Your task to perform on an android device: Search for Mexican restaurants on Maps Image 0: 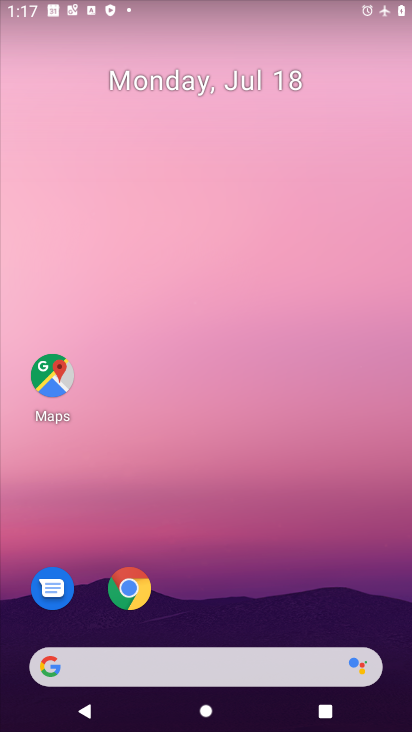
Step 0: click (339, 100)
Your task to perform on an android device: Search for Mexican restaurants on Maps Image 1: 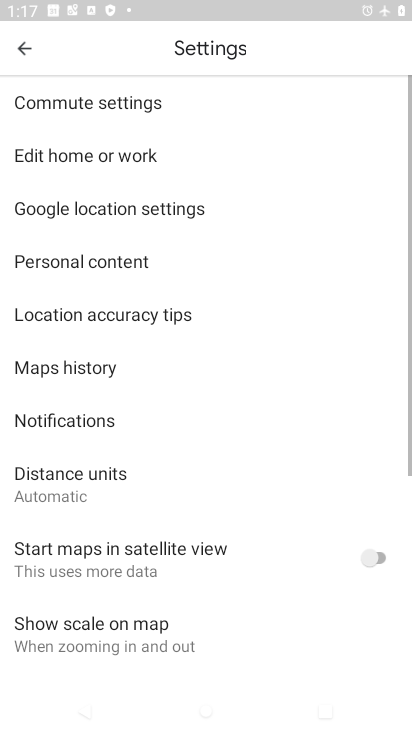
Step 1: press home button
Your task to perform on an android device: Search for Mexican restaurants on Maps Image 2: 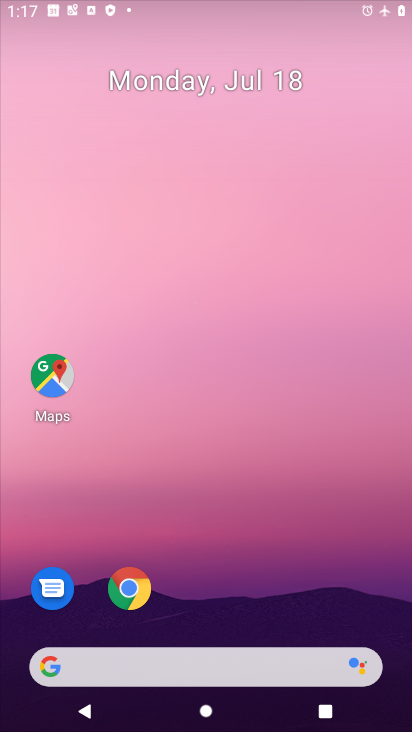
Step 2: drag from (225, 653) to (262, 190)
Your task to perform on an android device: Search for Mexican restaurants on Maps Image 3: 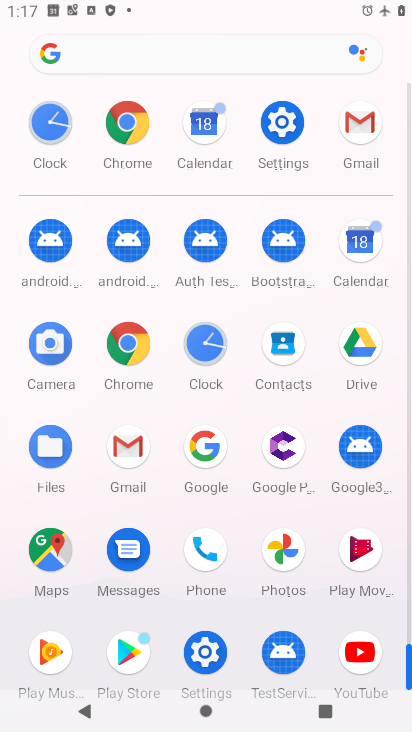
Step 3: drag from (227, 546) to (227, 377)
Your task to perform on an android device: Search for Mexican restaurants on Maps Image 4: 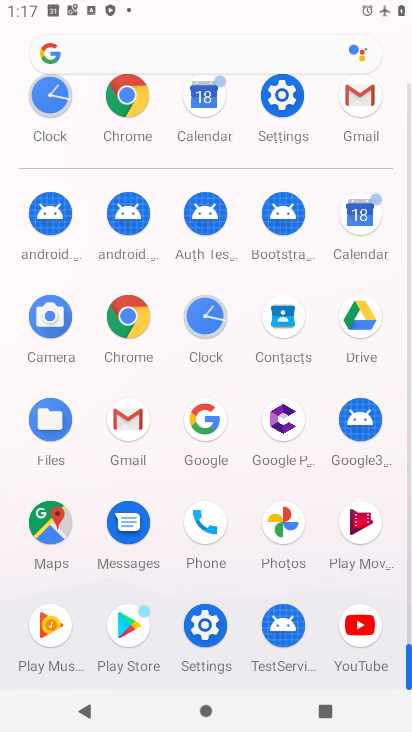
Step 4: click (52, 537)
Your task to perform on an android device: Search for Mexican restaurants on Maps Image 5: 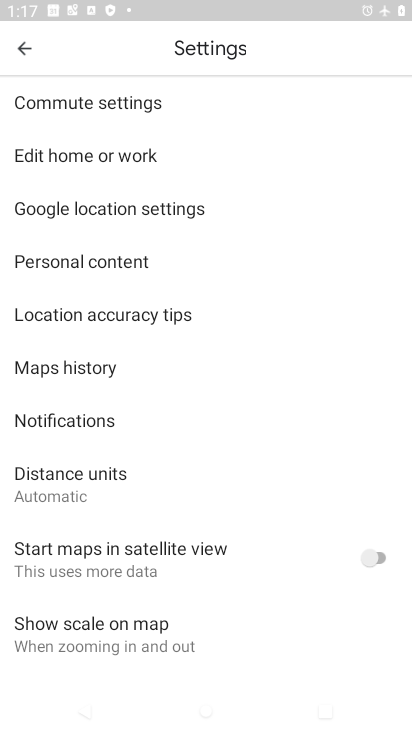
Step 5: click (19, 34)
Your task to perform on an android device: Search for Mexican restaurants on Maps Image 6: 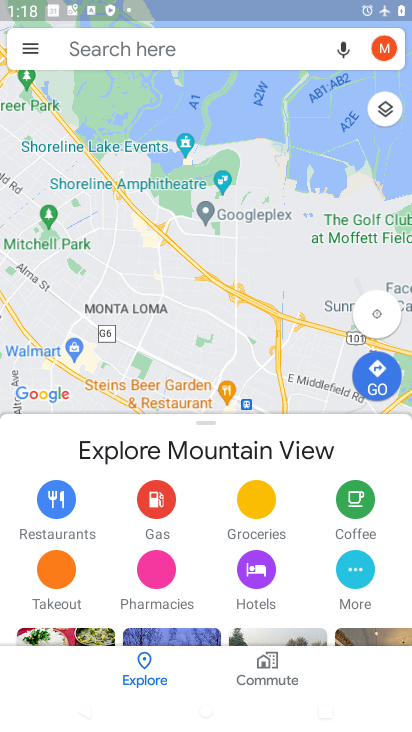
Step 6: click (155, 53)
Your task to perform on an android device: Search for Mexican restaurants on Maps Image 7: 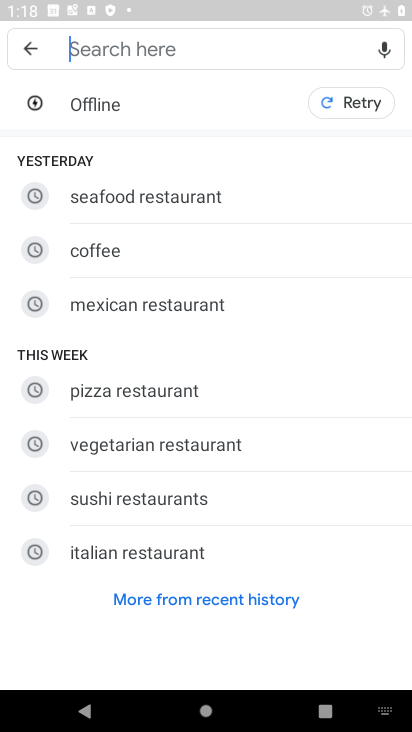
Step 7: click (165, 305)
Your task to perform on an android device: Search for Mexican restaurants on Maps Image 8: 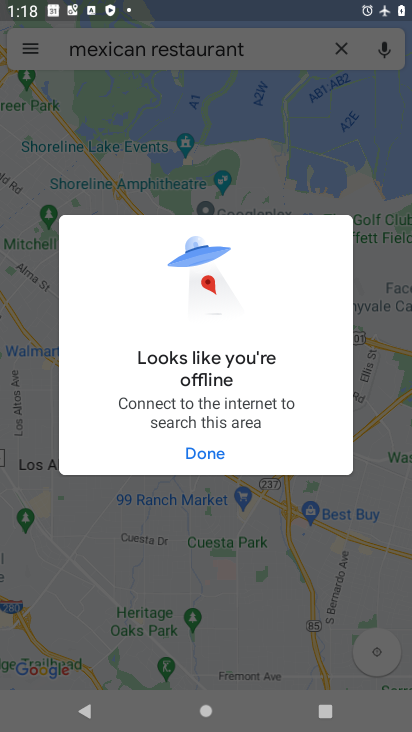
Step 8: click (218, 455)
Your task to perform on an android device: Search for Mexican restaurants on Maps Image 9: 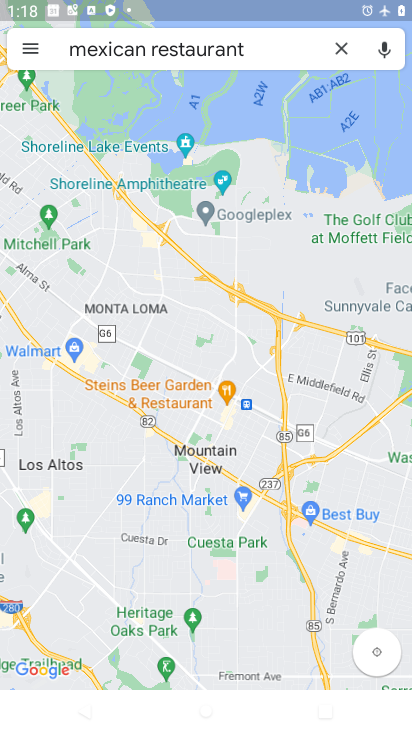
Step 9: task complete